Your task to perform on an android device: Search for jbl charge 4 on newegg.com, select the first entry, and add it to the cart. Image 0: 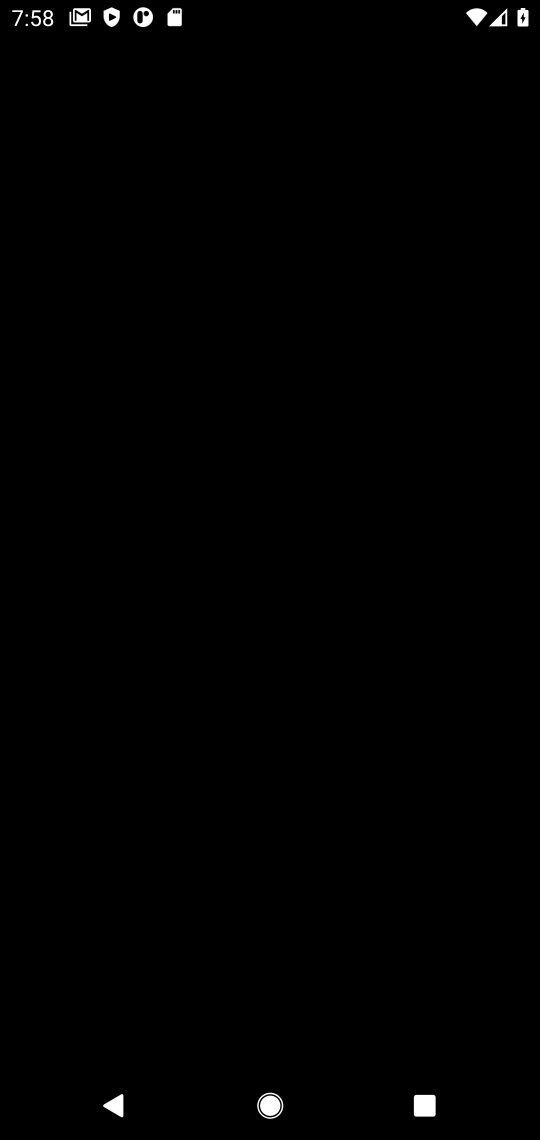
Step 0: press home button
Your task to perform on an android device: Search for jbl charge 4 on newegg.com, select the first entry, and add it to the cart. Image 1: 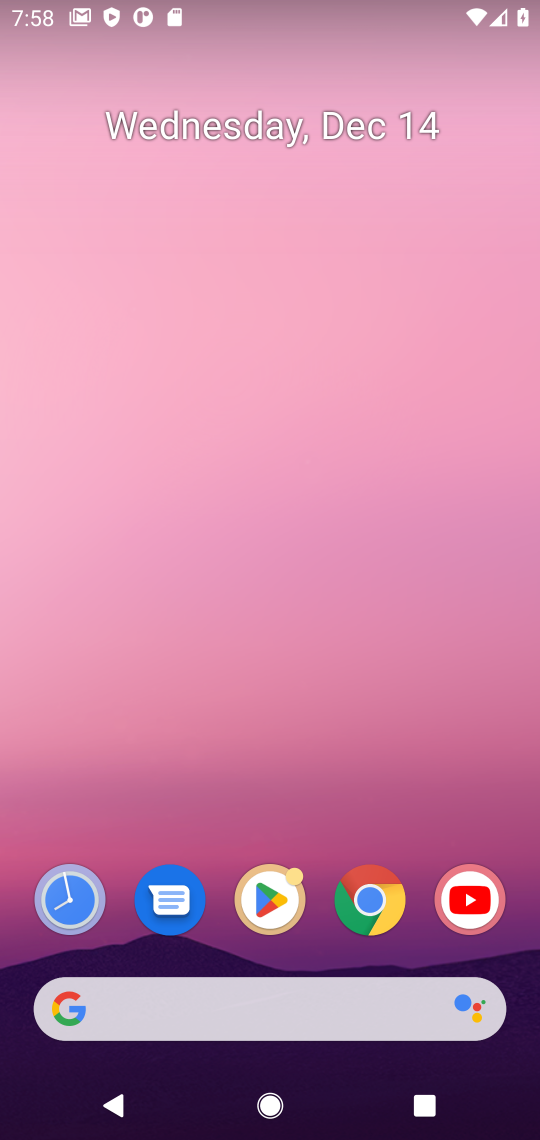
Step 1: click (366, 902)
Your task to perform on an android device: Search for jbl charge 4 on newegg.com, select the first entry, and add it to the cart. Image 2: 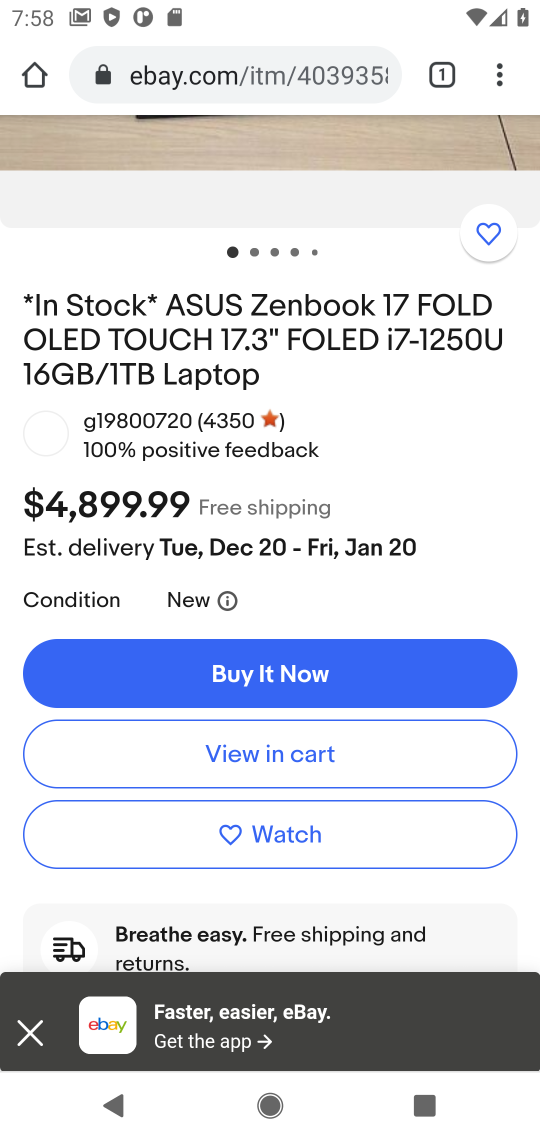
Step 2: click (222, 84)
Your task to perform on an android device: Search for jbl charge 4 on newegg.com, select the first entry, and add it to the cart. Image 3: 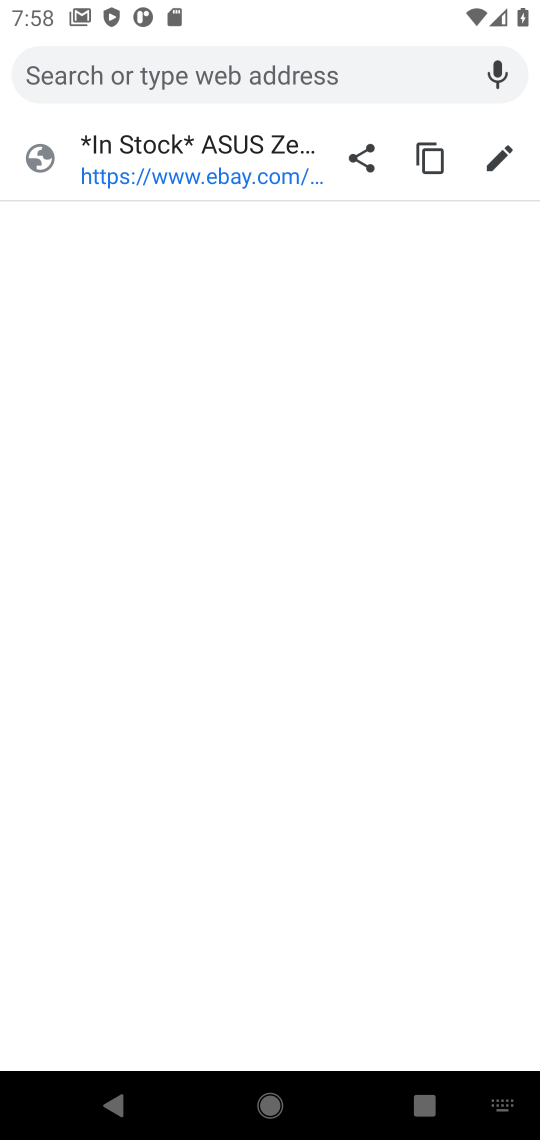
Step 3: type "newegg.com"
Your task to perform on an android device: Search for jbl charge 4 on newegg.com, select the first entry, and add it to the cart. Image 4: 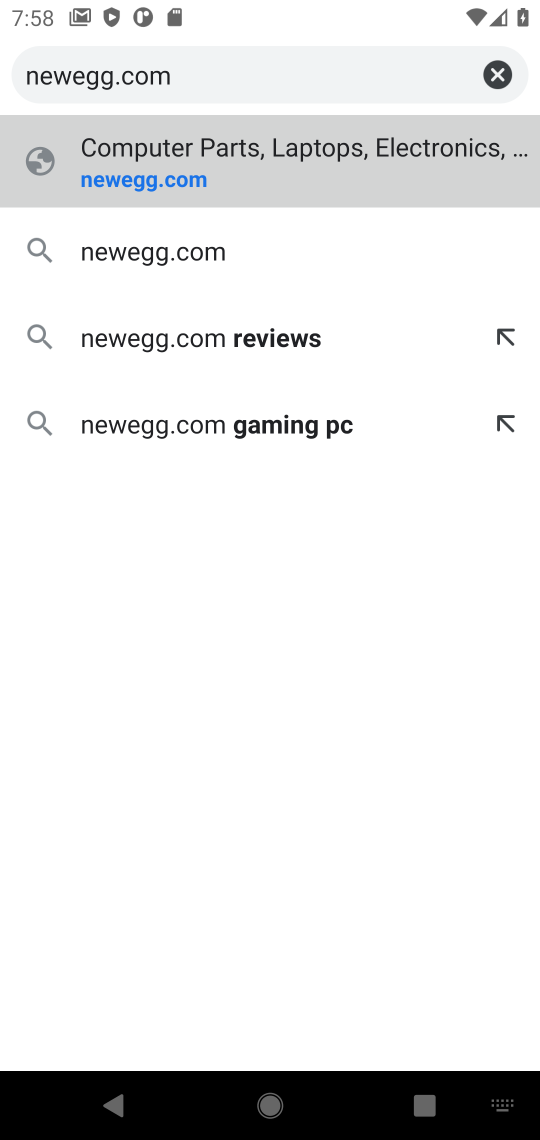
Step 4: click (156, 155)
Your task to perform on an android device: Search for jbl charge 4 on newegg.com, select the first entry, and add it to the cart. Image 5: 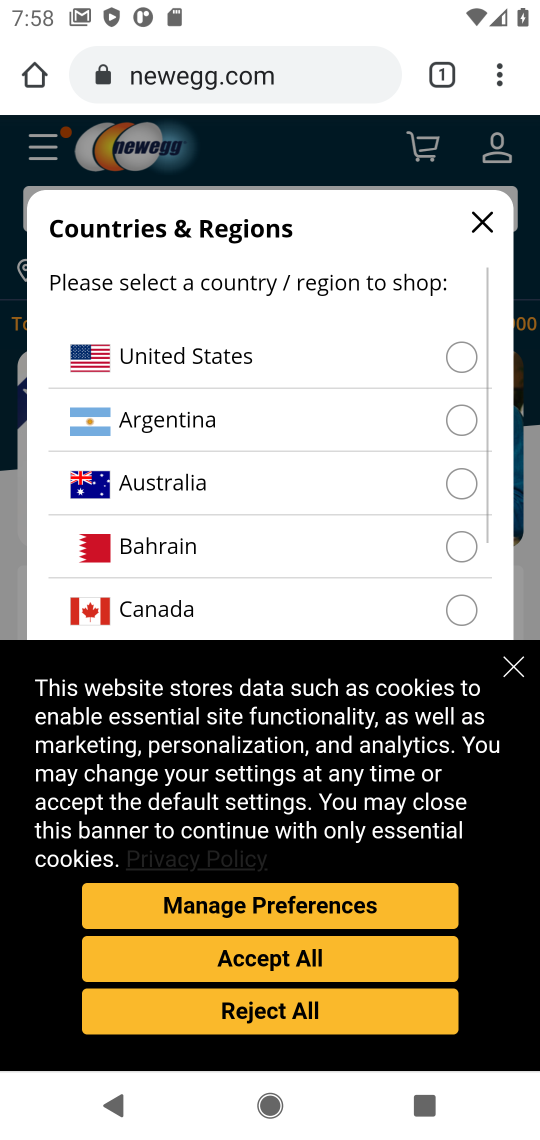
Step 5: click (507, 670)
Your task to perform on an android device: Search for jbl charge 4 on newegg.com, select the first entry, and add it to the cart. Image 6: 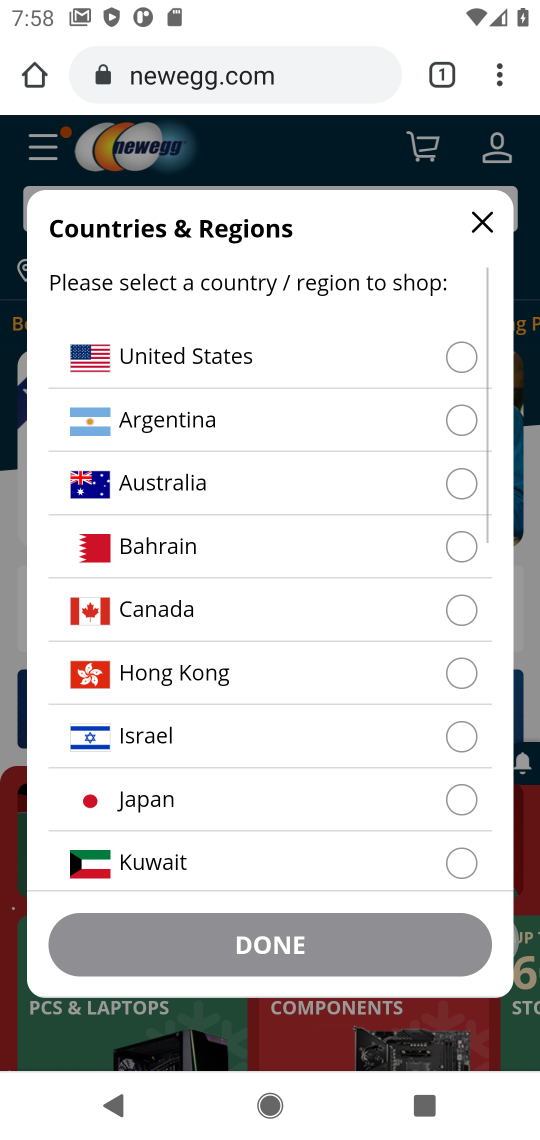
Step 6: click (181, 355)
Your task to perform on an android device: Search for jbl charge 4 on newegg.com, select the first entry, and add it to the cart. Image 7: 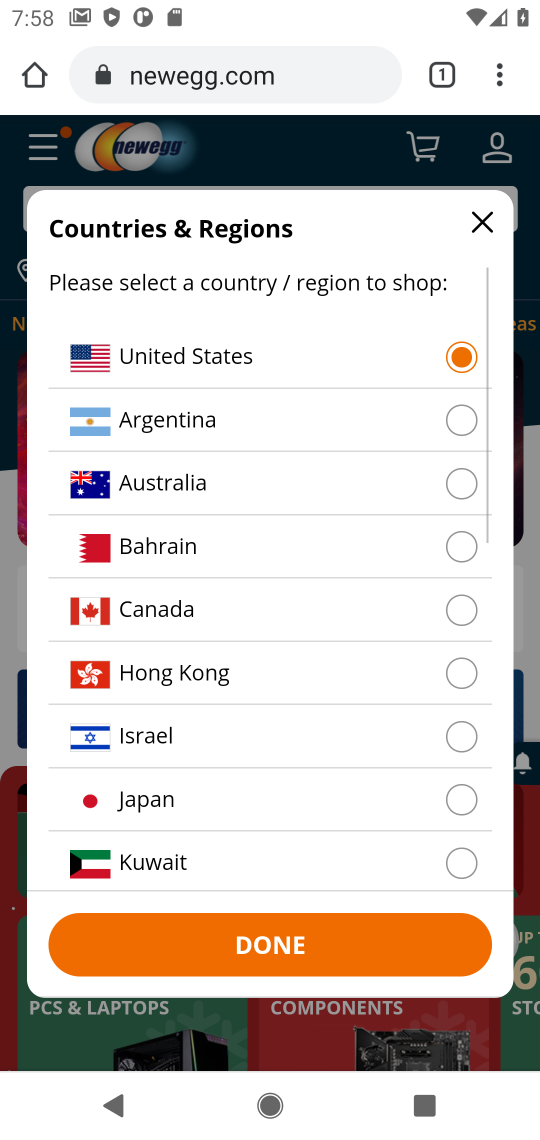
Step 7: click (235, 941)
Your task to perform on an android device: Search for jbl charge 4 on newegg.com, select the first entry, and add it to the cart. Image 8: 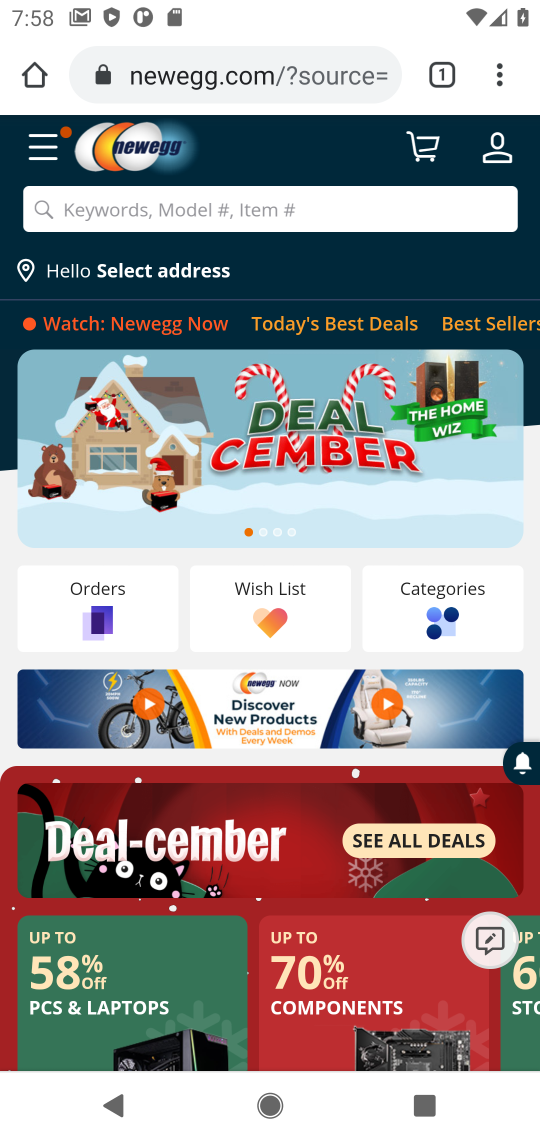
Step 8: click (161, 218)
Your task to perform on an android device: Search for jbl charge 4 on newegg.com, select the first entry, and add it to the cart. Image 9: 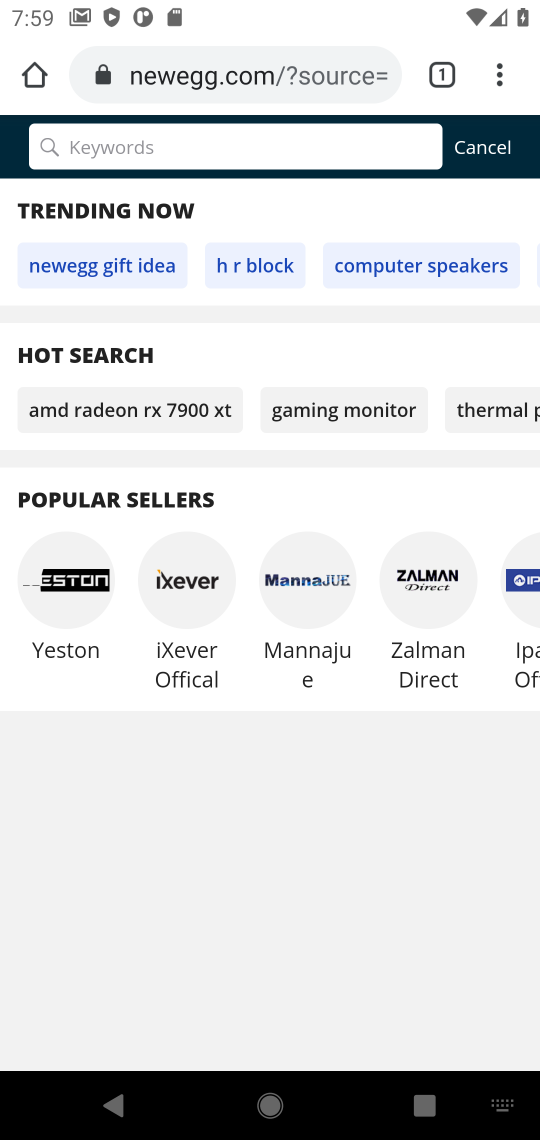
Step 9: type "jbl charge 4"
Your task to perform on an android device: Search for jbl charge 4 on newegg.com, select the first entry, and add it to the cart. Image 10: 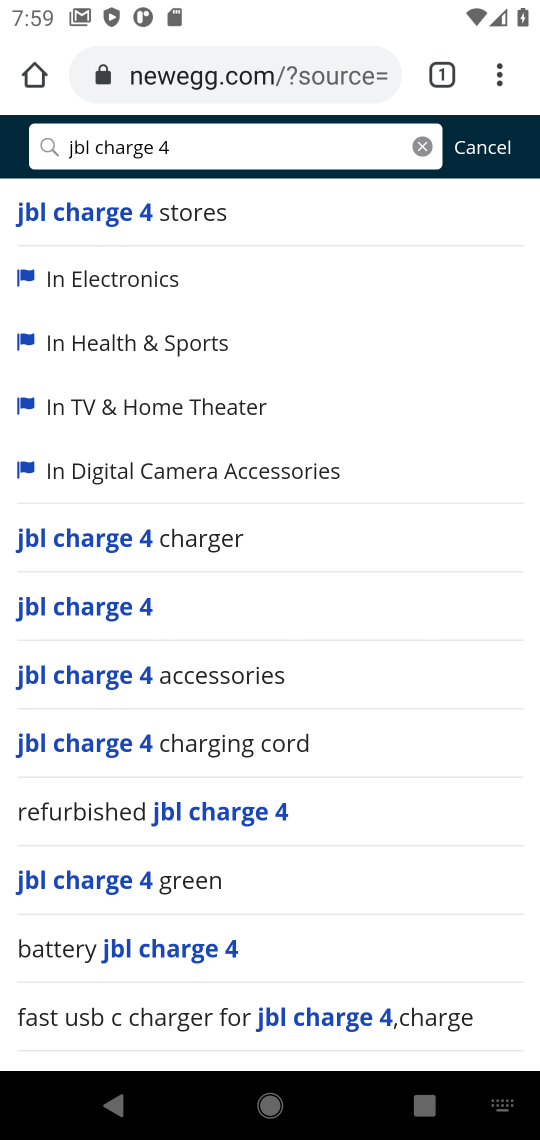
Step 10: click (33, 614)
Your task to perform on an android device: Search for jbl charge 4 on newegg.com, select the first entry, and add it to the cart. Image 11: 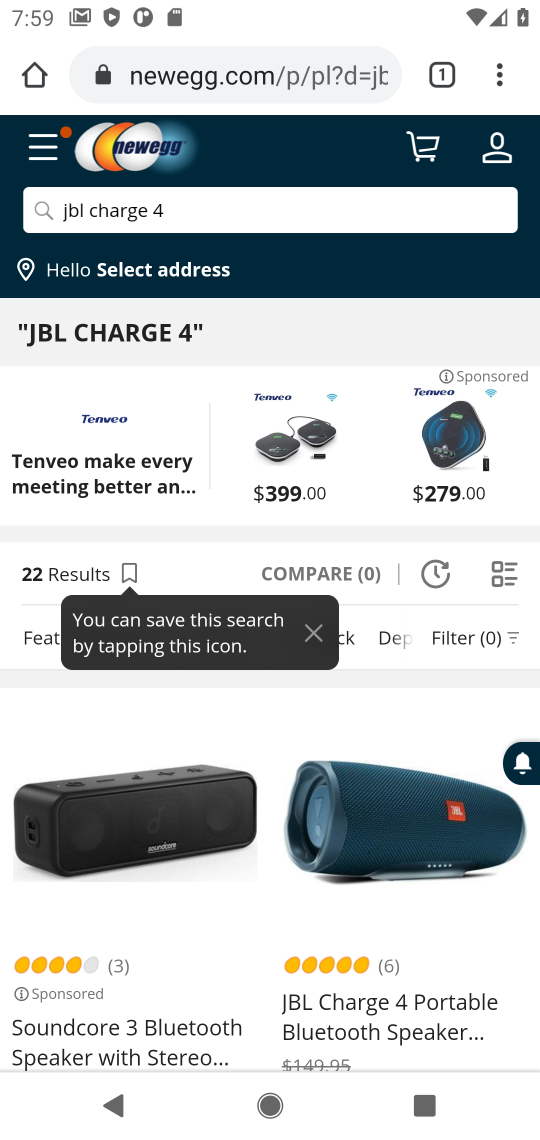
Step 11: task complete